Your task to perform on an android device: turn on translation in the chrome app Image 0: 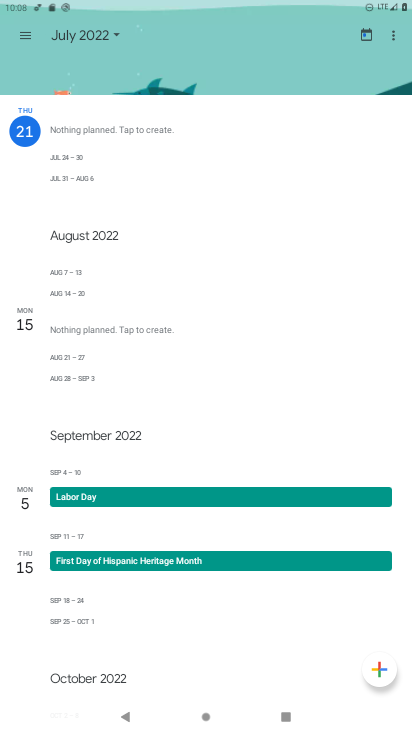
Step 0: press home button
Your task to perform on an android device: turn on translation in the chrome app Image 1: 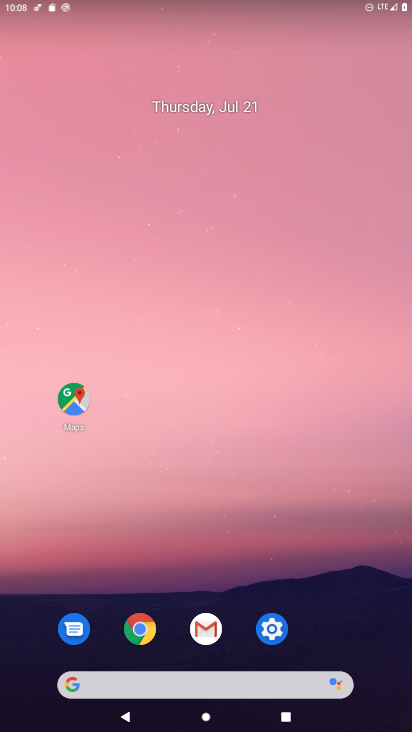
Step 1: click (152, 621)
Your task to perform on an android device: turn on translation in the chrome app Image 2: 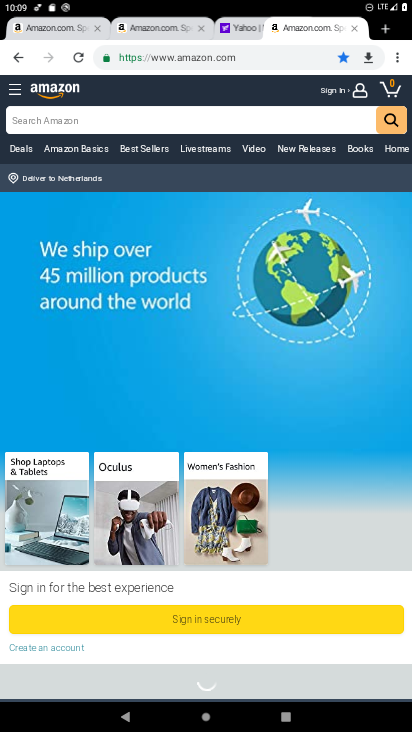
Step 2: click (396, 61)
Your task to perform on an android device: turn on translation in the chrome app Image 3: 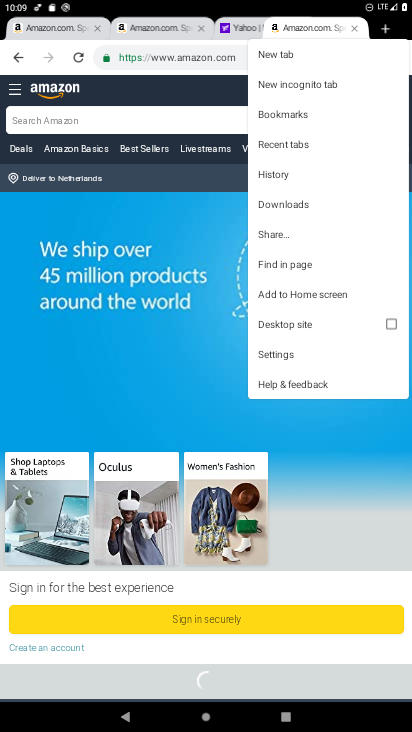
Step 3: click (268, 349)
Your task to perform on an android device: turn on translation in the chrome app Image 4: 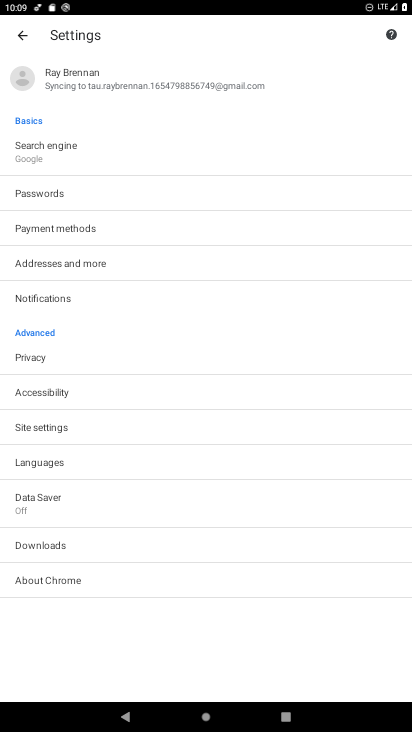
Step 4: click (61, 465)
Your task to perform on an android device: turn on translation in the chrome app Image 5: 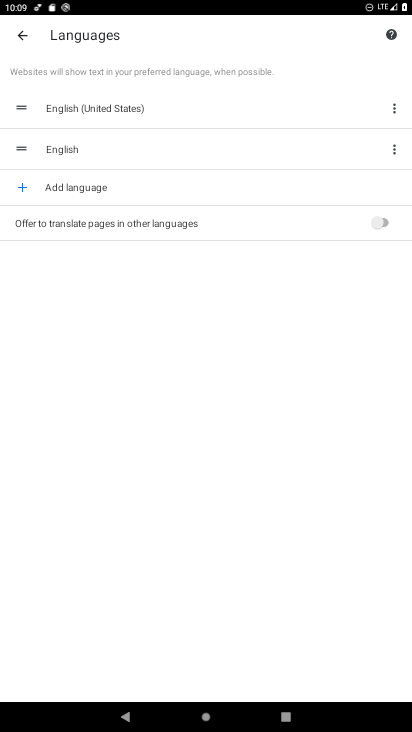
Step 5: click (381, 230)
Your task to perform on an android device: turn on translation in the chrome app Image 6: 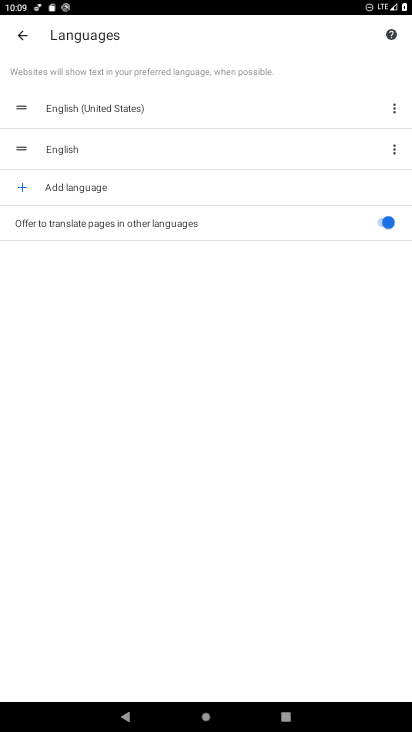
Step 6: task complete